Your task to perform on an android device: turn on location history Image 0: 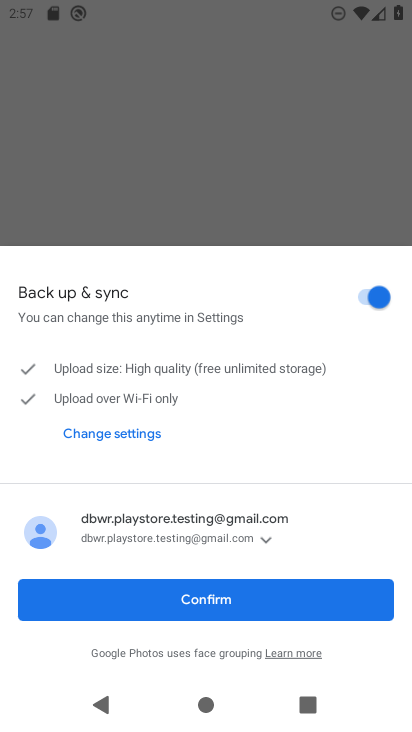
Step 0: press back button
Your task to perform on an android device: turn on location history Image 1: 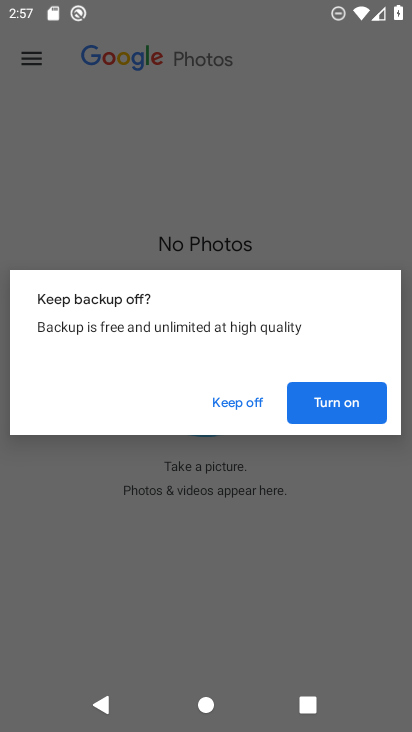
Step 1: click (299, 401)
Your task to perform on an android device: turn on location history Image 2: 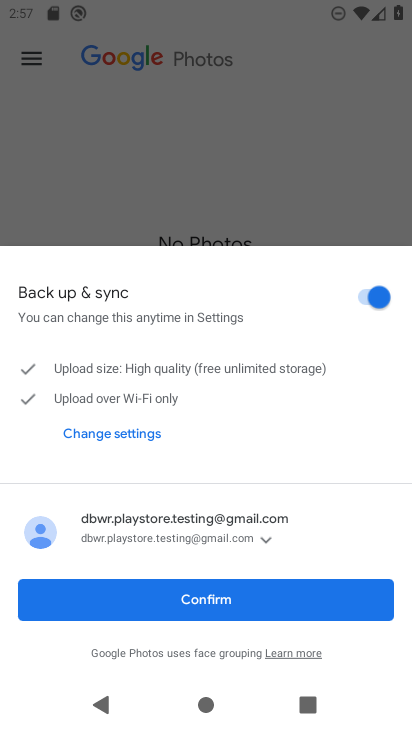
Step 2: click (229, 589)
Your task to perform on an android device: turn on location history Image 3: 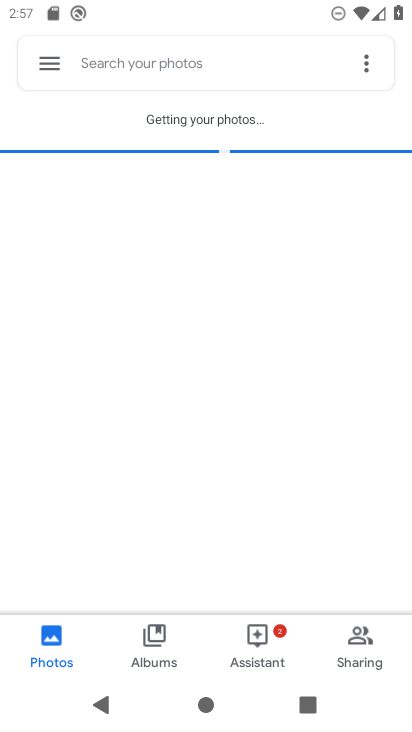
Step 3: press back button
Your task to perform on an android device: turn on location history Image 4: 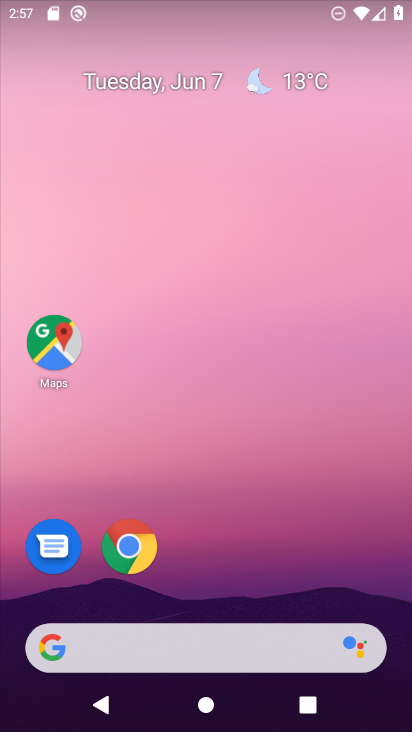
Step 4: drag from (246, 565) to (196, 16)
Your task to perform on an android device: turn on location history Image 5: 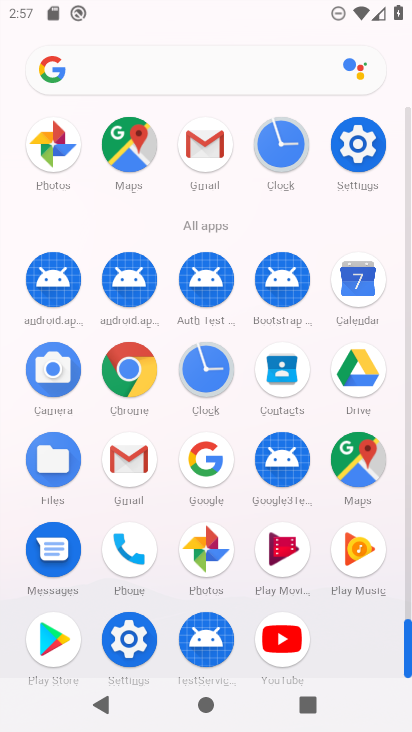
Step 5: click (128, 637)
Your task to perform on an android device: turn on location history Image 6: 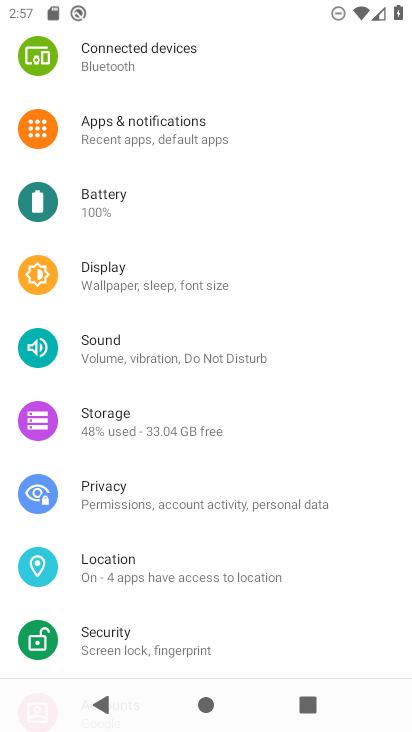
Step 6: drag from (249, 115) to (255, 509)
Your task to perform on an android device: turn on location history Image 7: 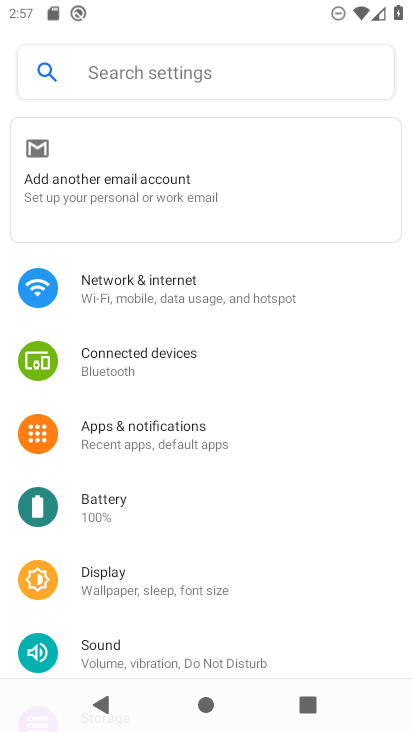
Step 7: drag from (231, 620) to (268, 236)
Your task to perform on an android device: turn on location history Image 8: 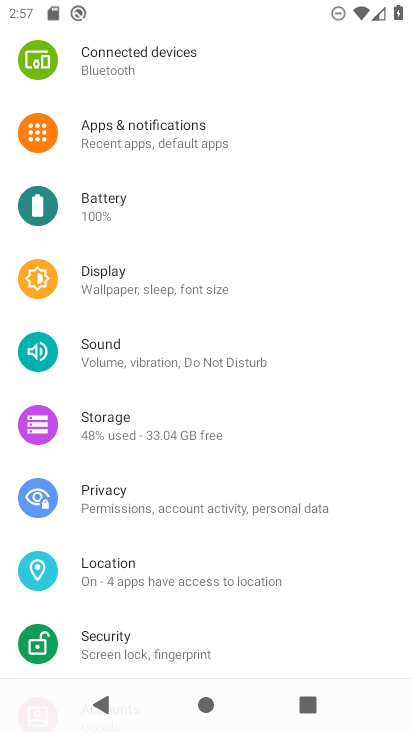
Step 8: click (155, 567)
Your task to perform on an android device: turn on location history Image 9: 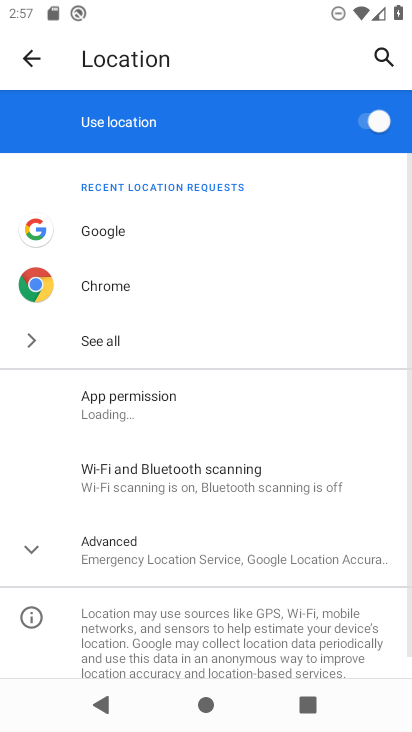
Step 9: click (43, 546)
Your task to perform on an android device: turn on location history Image 10: 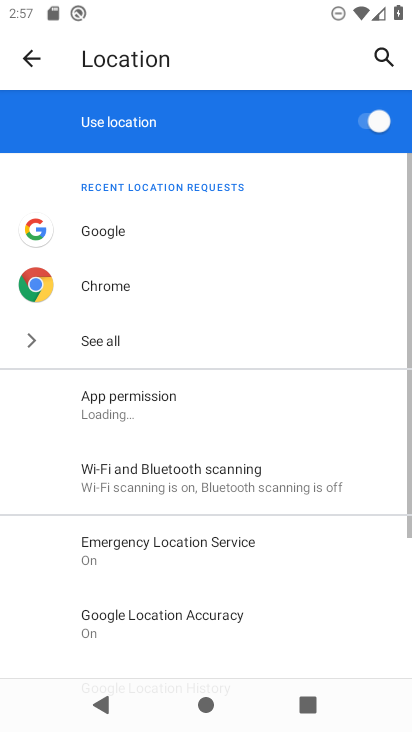
Step 10: drag from (273, 602) to (265, 229)
Your task to perform on an android device: turn on location history Image 11: 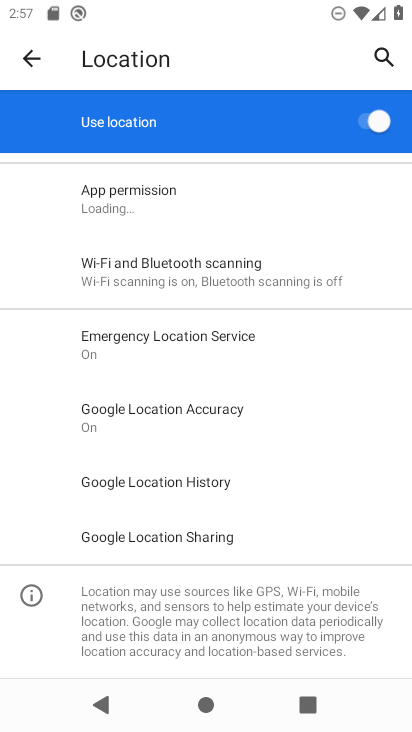
Step 11: click (176, 469)
Your task to perform on an android device: turn on location history Image 12: 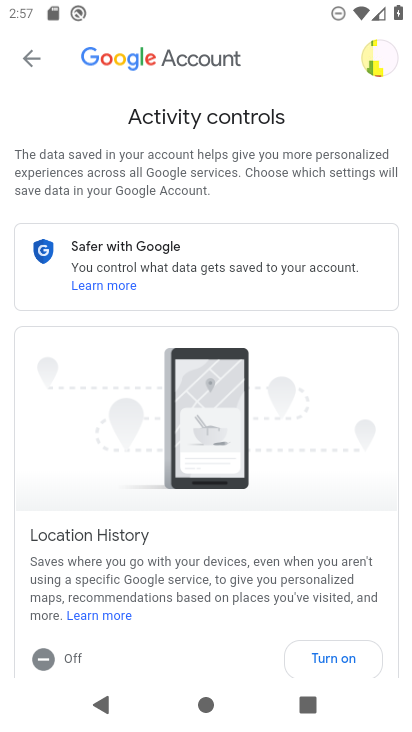
Step 12: drag from (215, 574) to (218, 198)
Your task to perform on an android device: turn on location history Image 13: 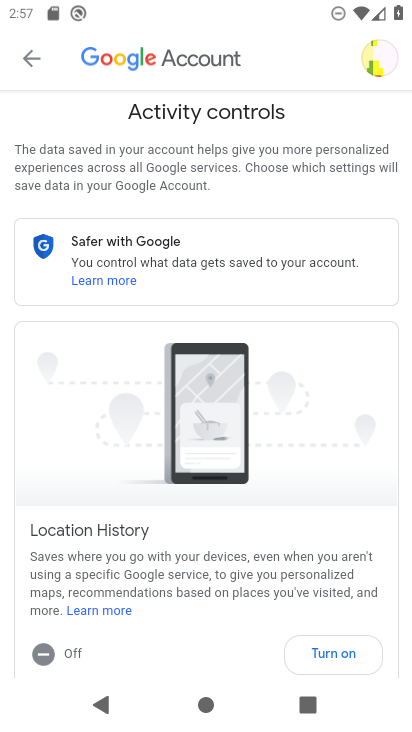
Step 13: drag from (222, 525) to (268, 113)
Your task to perform on an android device: turn on location history Image 14: 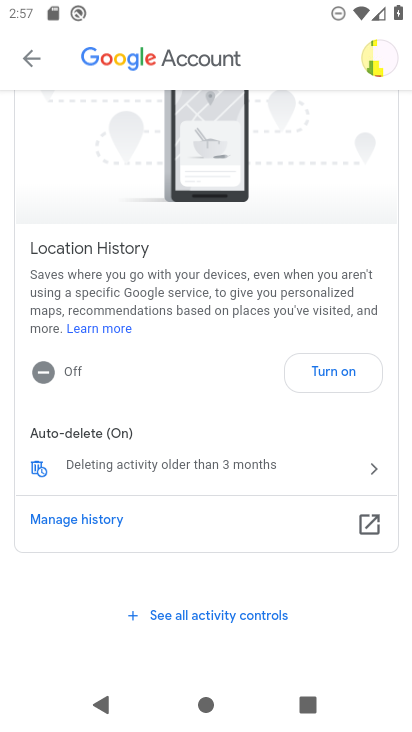
Step 14: drag from (234, 520) to (266, 129)
Your task to perform on an android device: turn on location history Image 15: 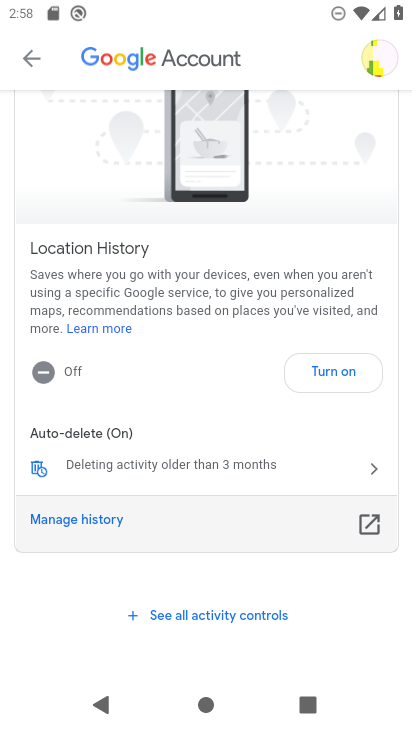
Step 15: click (339, 393)
Your task to perform on an android device: turn on location history Image 16: 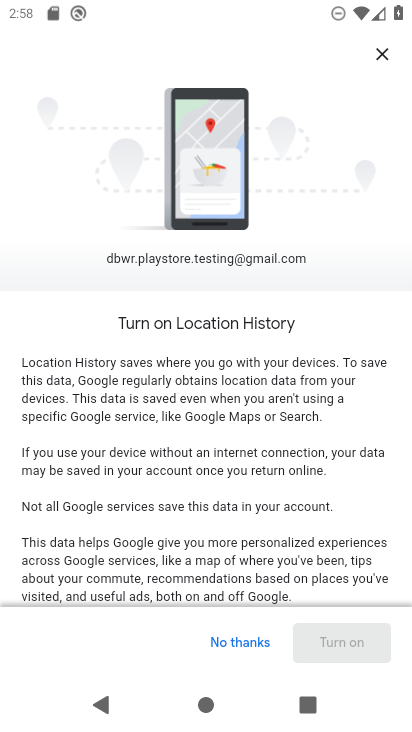
Step 16: drag from (215, 411) to (250, 71)
Your task to perform on an android device: turn on location history Image 17: 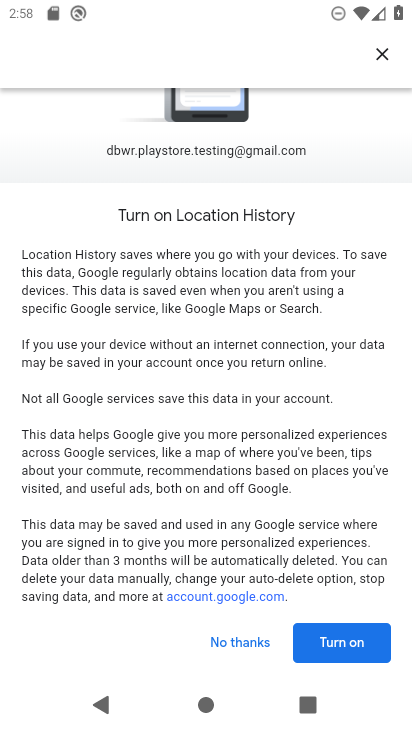
Step 17: drag from (267, 553) to (289, 332)
Your task to perform on an android device: turn on location history Image 18: 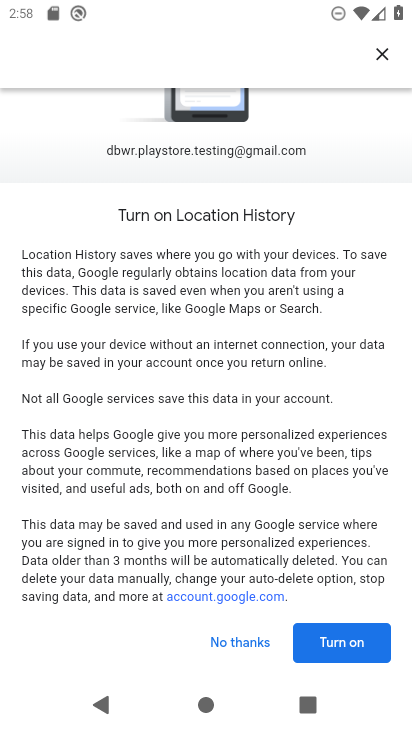
Step 18: click (351, 649)
Your task to perform on an android device: turn on location history Image 19: 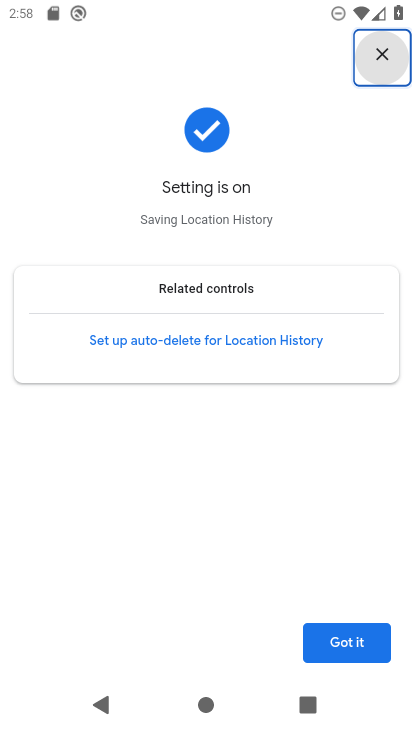
Step 19: click (366, 649)
Your task to perform on an android device: turn on location history Image 20: 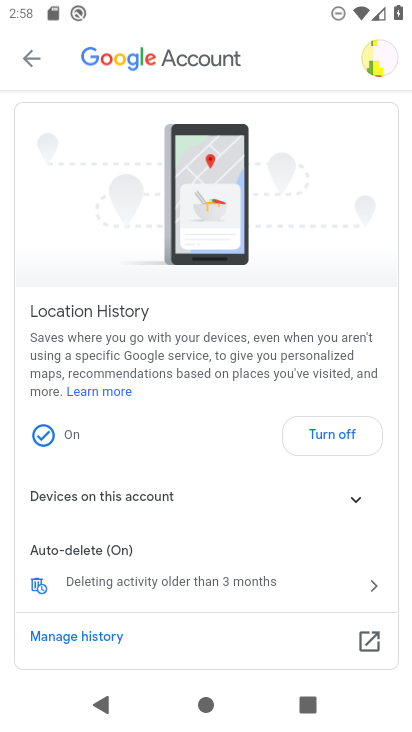
Step 20: task complete